Your task to perform on an android device: Search for seafood restaurants on Google Maps Image 0: 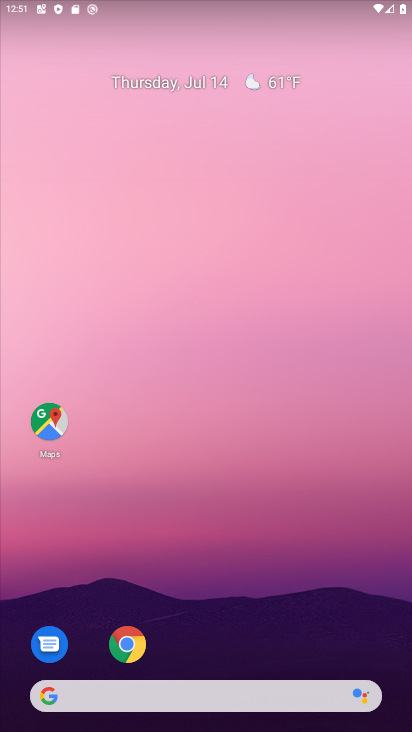
Step 0: drag from (276, 723) to (178, 2)
Your task to perform on an android device: Search for seafood restaurants on Google Maps Image 1: 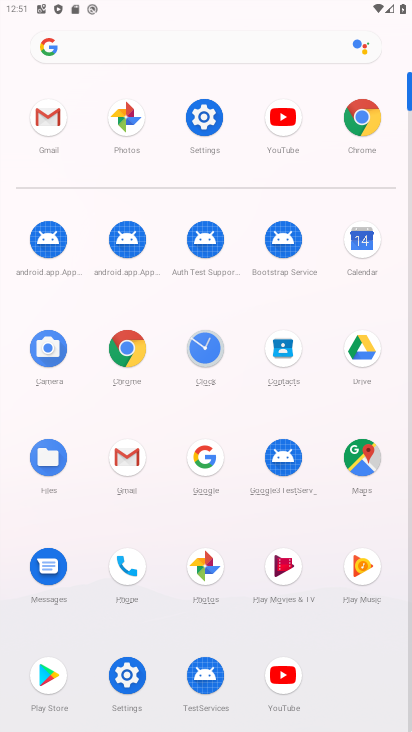
Step 1: click (355, 453)
Your task to perform on an android device: Search for seafood restaurants on Google Maps Image 2: 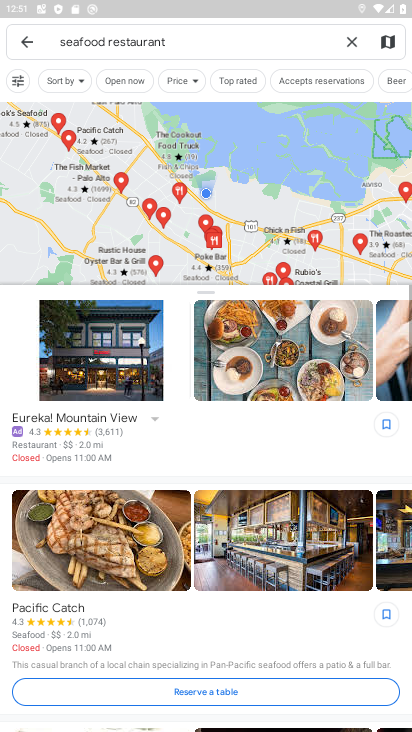
Step 2: task complete